Your task to perform on an android device: Is it going to rain this weekend? Image 0: 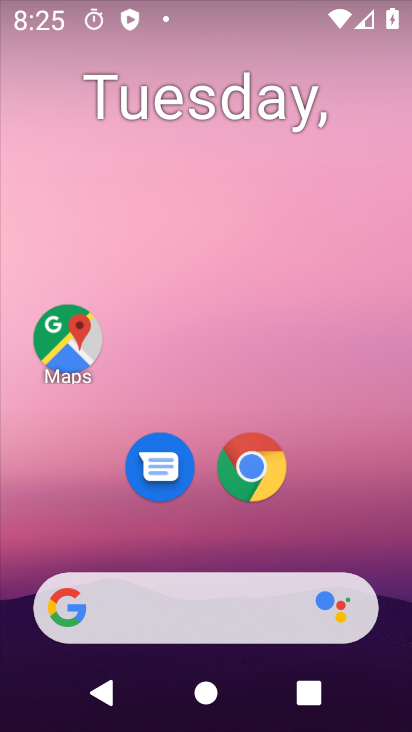
Step 0: click (259, 462)
Your task to perform on an android device: Is it going to rain this weekend? Image 1: 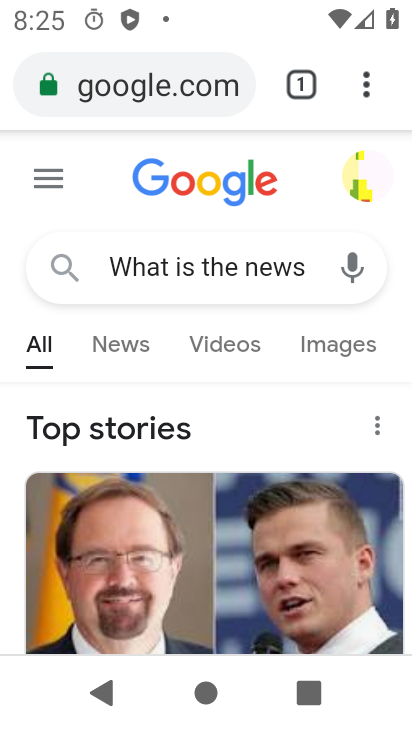
Step 1: click (203, 89)
Your task to perform on an android device: Is it going to rain this weekend? Image 2: 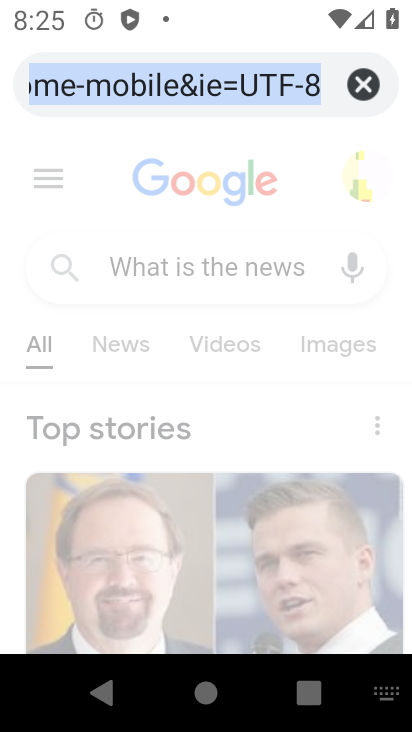
Step 2: type "Is it going to rain this weekend?"
Your task to perform on an android device: Is it going to rain this weekend? Image 3: 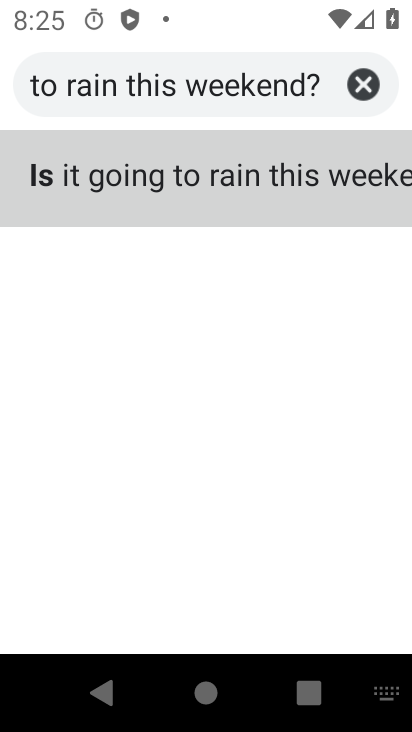
Step 3: click (261, 170)
Your task to perform on an android device: Is it going to rain this weekend? Image 4: 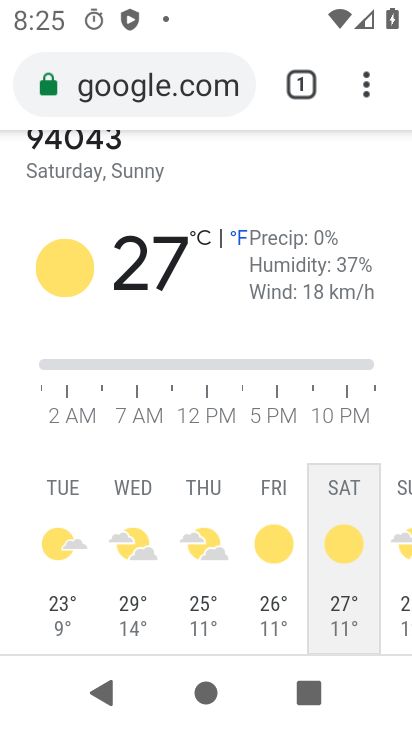
Step 4: task complete